Your task to perform on an android device: Open network settings Image 0: 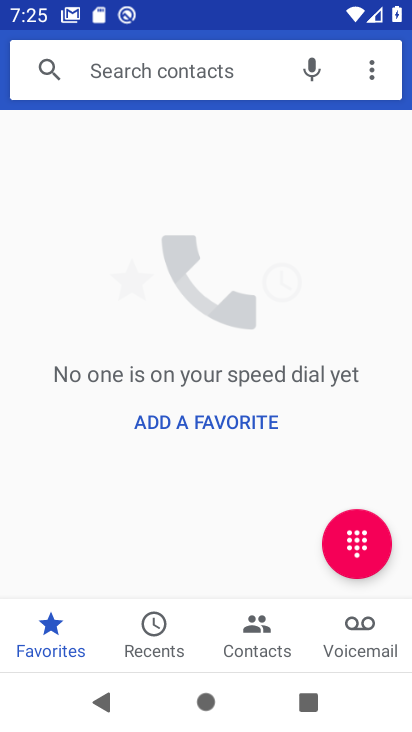
Step 0: press home button
Your task to perform on an android device: Open network settings Image 1: 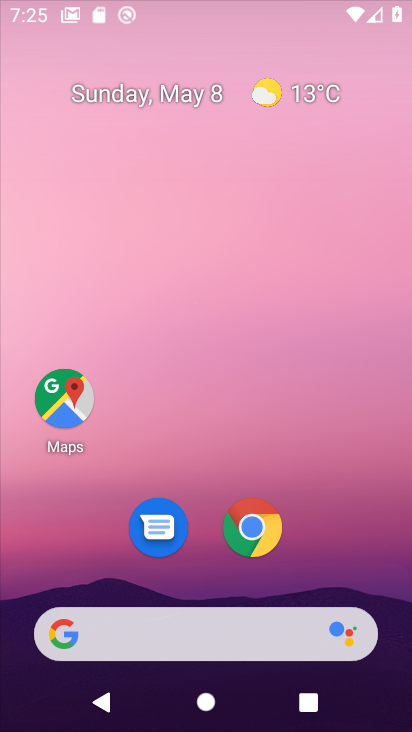
Step 1: drag from (194, 580) to (177, 62)
Your task to perform on an android device: Open network settings Image 2: 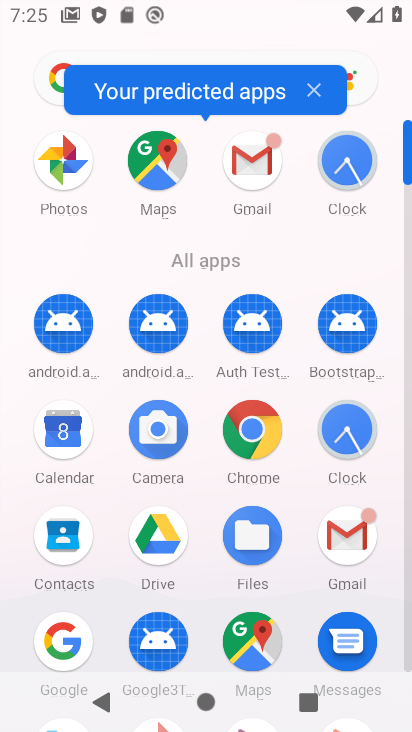
Step 2: drag from (200, 589) to (137, 148)
Your task to perform on an android device: Open network settings Image 3: 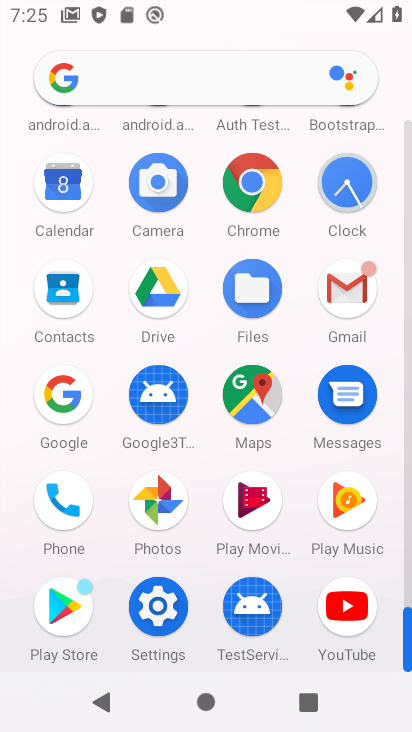
Step 3: click (165, 620)
Your task to perform on an android device: Open network settings Image 4: 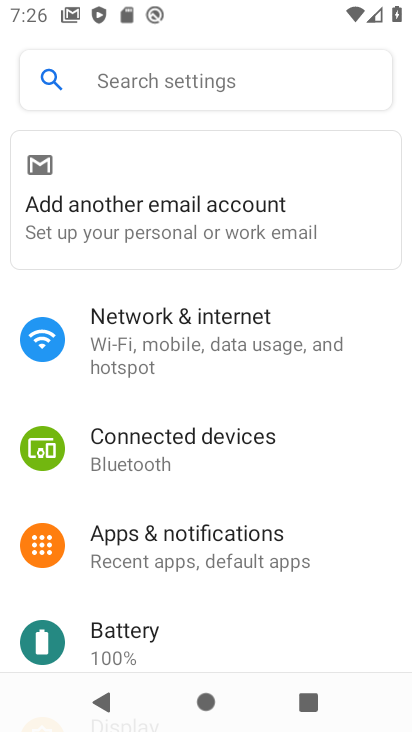
Step 4: click (154, 321)
Your task to perform on an android device: Open network settings Image 5: 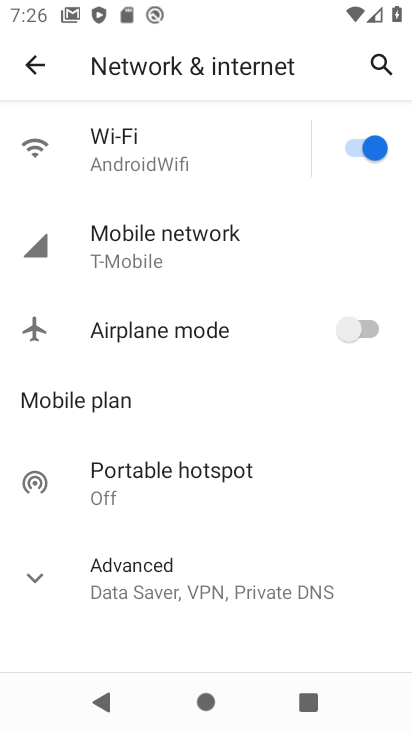
Step 5: click (138, 242)
Your task to perform on an android device: Open network settings Image 6: 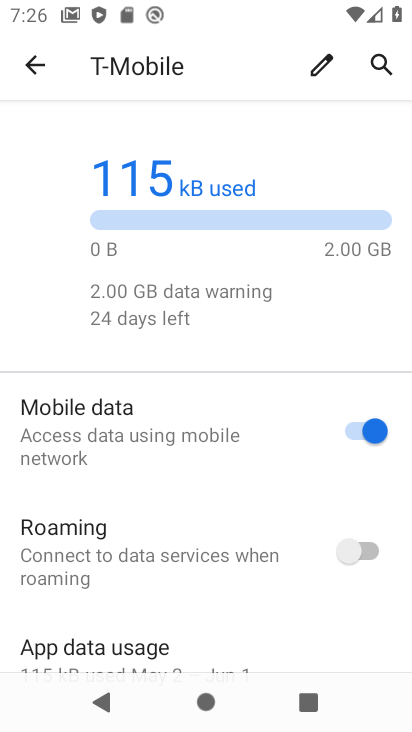
Step 6: task complete